Your task to perform on an android device: Open settings Image 0: 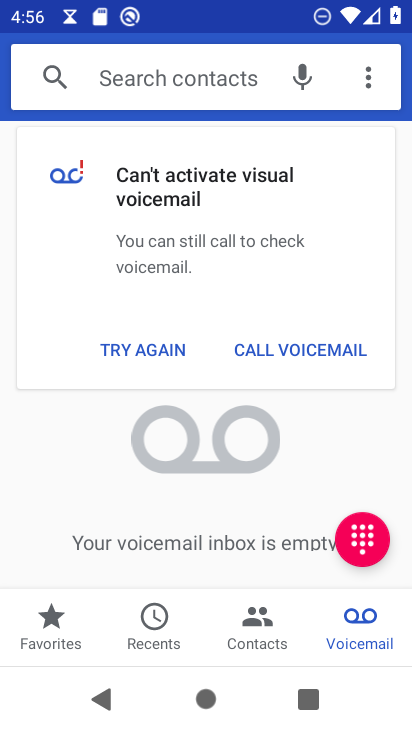
Step 0: press home button
Your task to perform on an android device: Open settings Image 1: 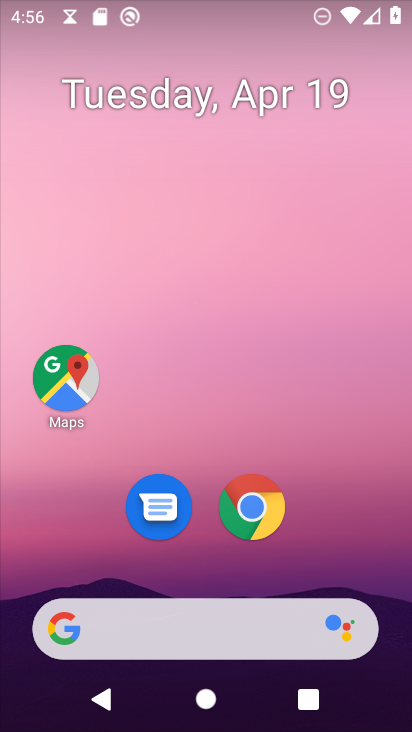
Step 1: drag from (352, 537) to (353, 52)
Your task to perform on an android device: Open settings Image 2: 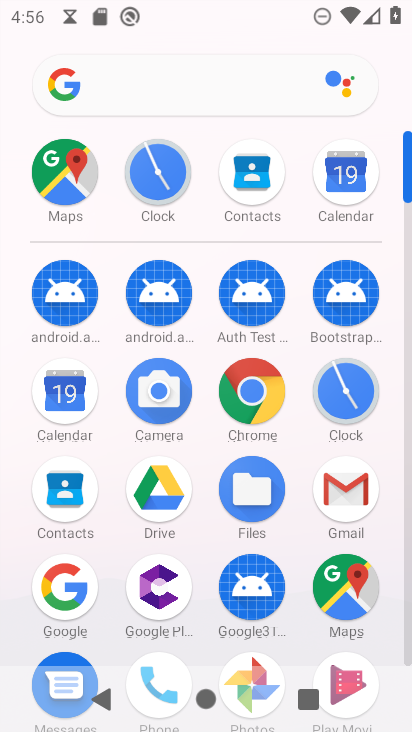
Step 2: drag from (200, 622) to (233, 402)
Your task to perform on an android device: Open settings Image 3: 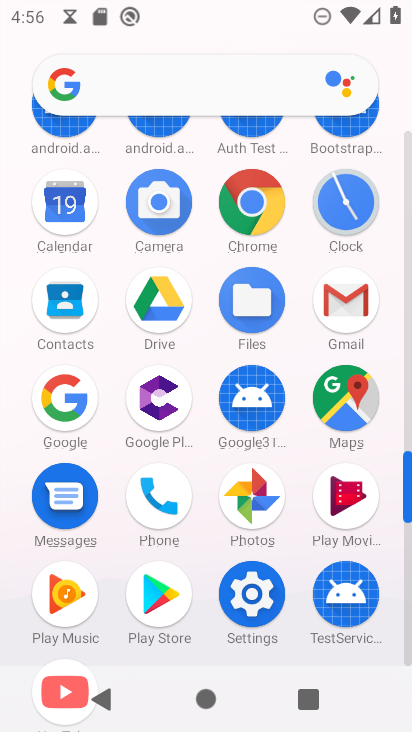
Step 3: click (252, 598)
Your task to perform on an android device: Open settings Image 4: 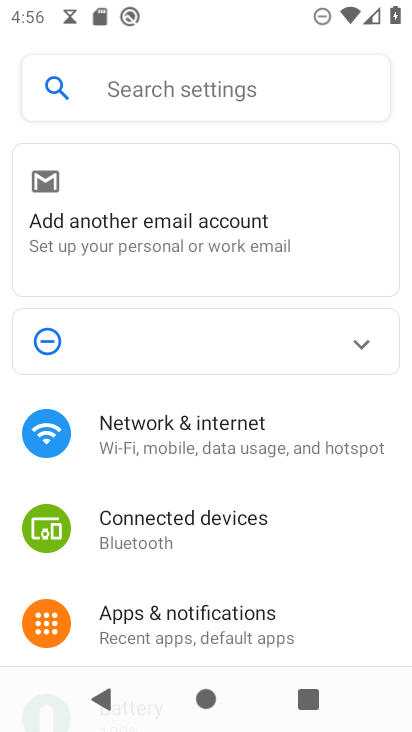
Step 4: task complete